Your task to perform on an android device: Search for pizza restaurants on Maps Image 0: 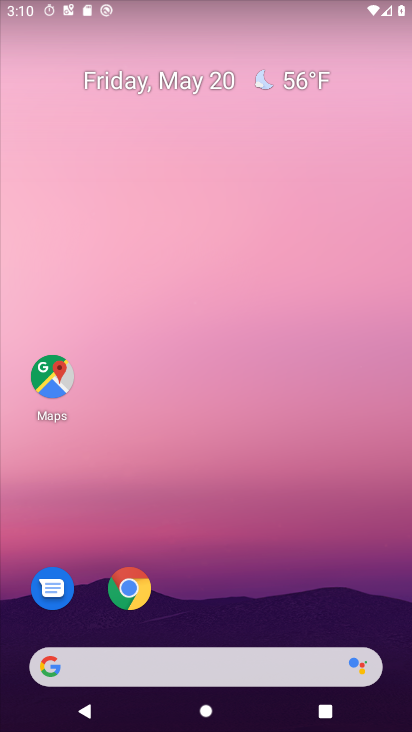
Step 0: press home button
Your task to perform on an android device: Search for pizza restaurants on Maps Image 1: 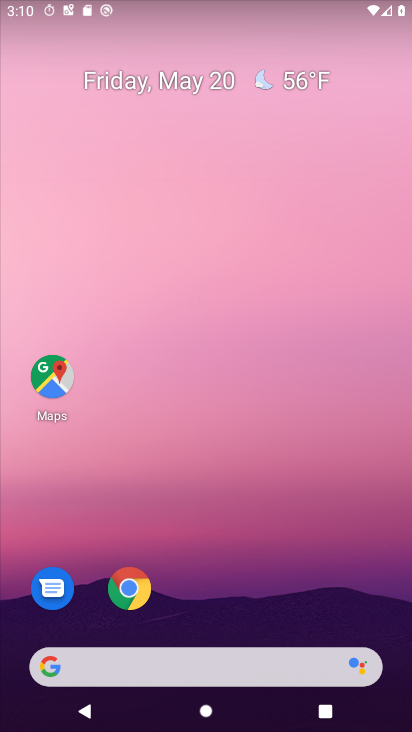
Step 1: click (66, 369)
Your task to perform on an android device: Search for pizza restaurants on Maps Image 2: 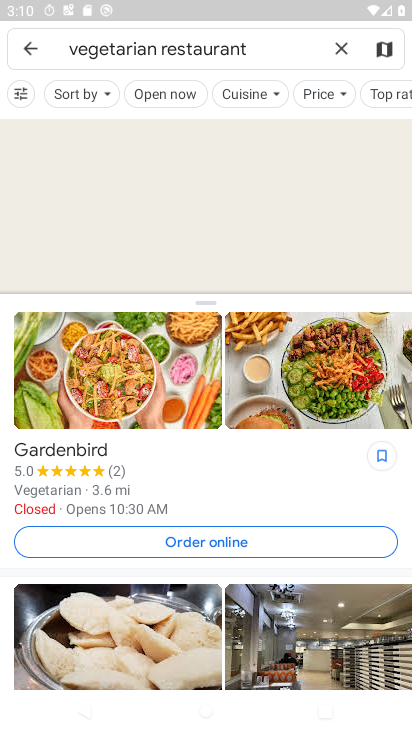
Step 2: click (344, 52)
Your task to perform on an android device: Search for pizza restaurants on Maps Image 3: 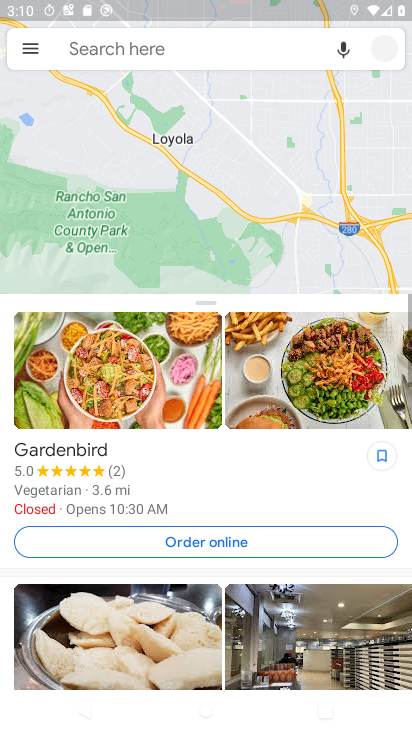
Step 3: click (152, 48)
Your task to perform on an android device: Search for pizza restaurants on Maps Image 4: 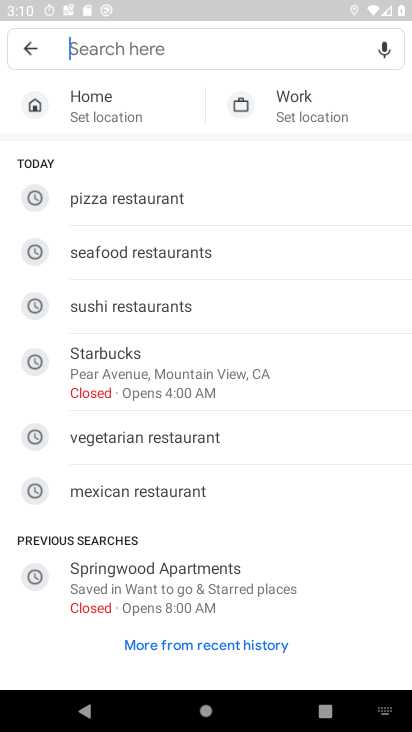
Step 4: click (111, 199)
Your task to perform on an android device: Search for pizza restaurants on Maps Image 5: 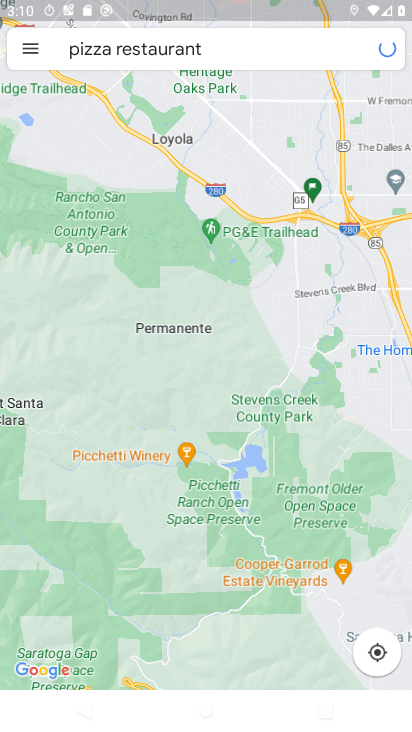
Step 5: task complete